Your task to perform on an android device: move an email to a new category in the gmail app Image 0: 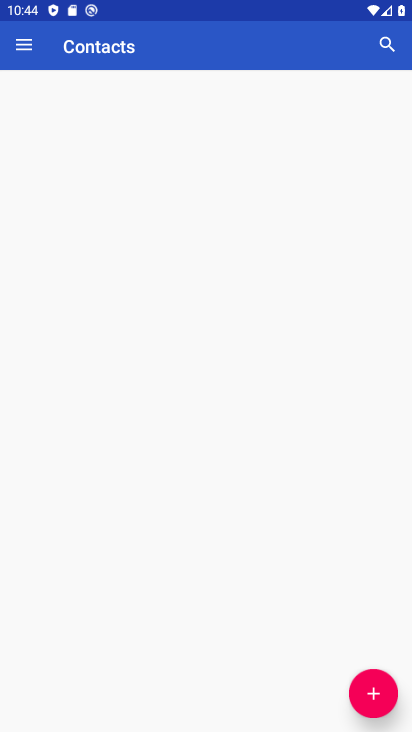
Step 0: press home button
Your task to perform on an android device: move an email to a new category in the gmail app Image 1: 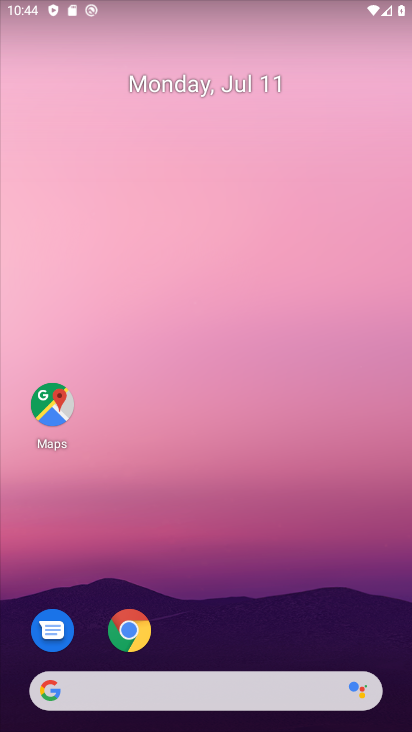
Step 1: drag from (210, 652) to (150, 2)
Your task to perform on an android device: move an email to a new category in the gmail app Image 2: 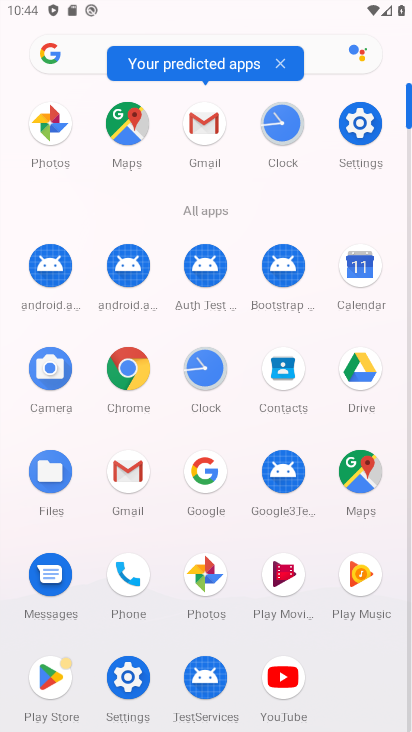
Step 2: click (127, 492)
Your task to perform on an android device: move an email to a new category in the gmail app Image 3: 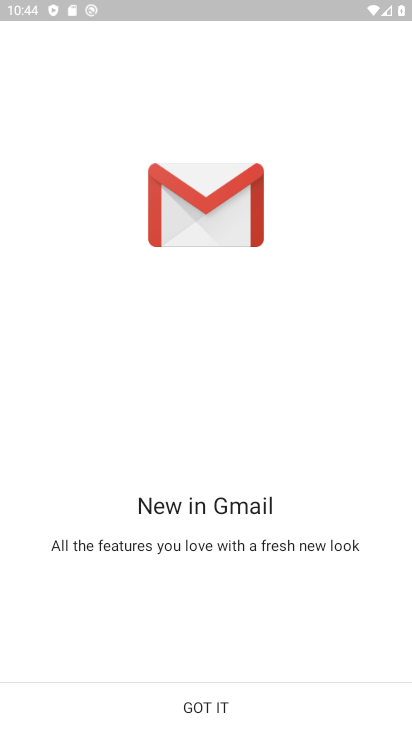
Step 3: click (216, 704)
Your task to perform on an android device: move an email to a new category in the gmail app Image 4: 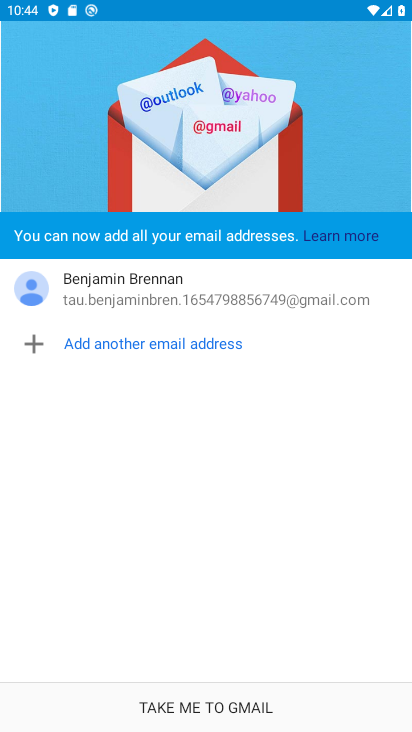
Step 4: click (216, 703)
Your task to perform on an android device: move an email to a new category in the gmail app Image 5: 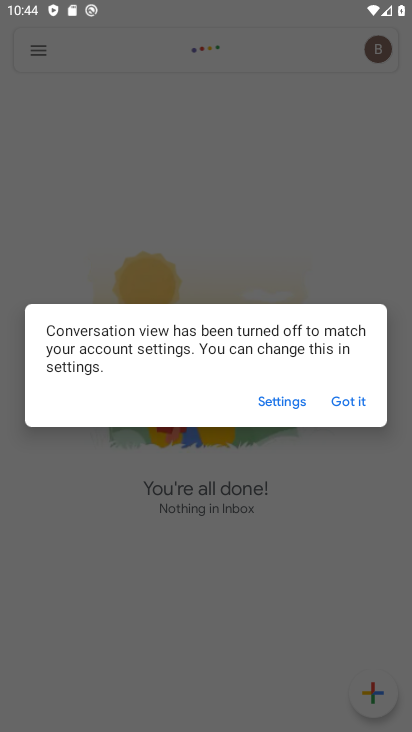
Step 5: click (341, 402)
Your task to perform on an android device: move an email to a new category in the gmail app Image 6: 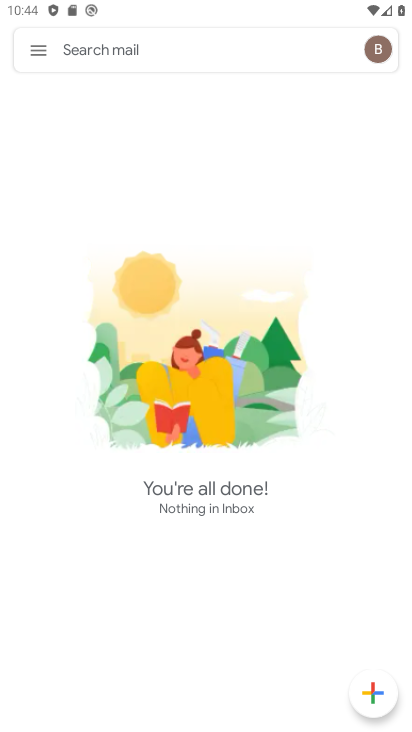
Step 6: task complete